Your task to perform on an android device: Search for Mexican restaurants on Maps Image 0: 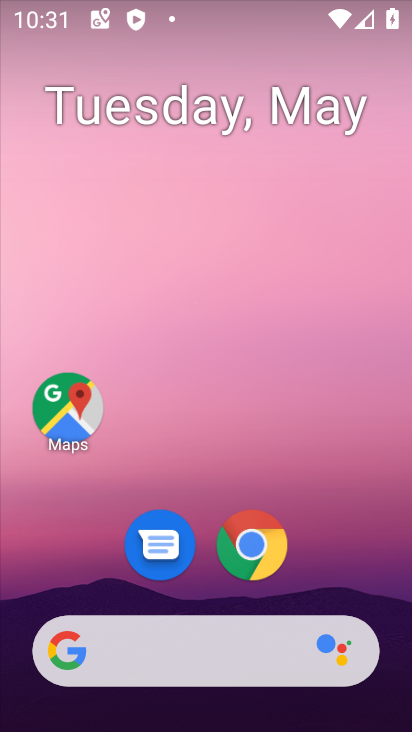
Step 0: click (83, 415)
Your task to perform on an android device: Search for Mexican restaurants on Maps Image 1: 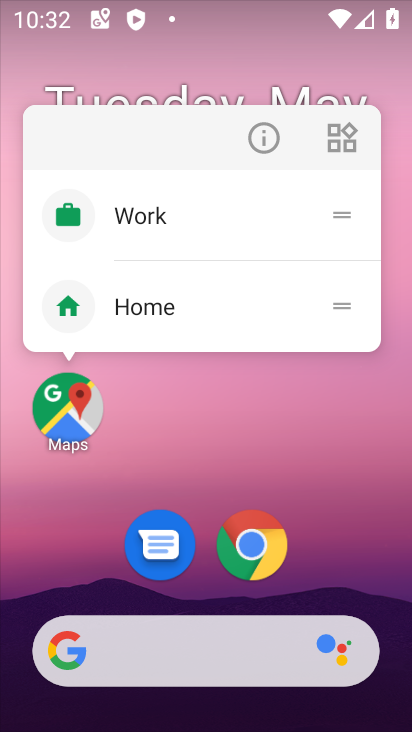
Step 1: click (87, 439)
Your task to perform on an android device: Search for Mexican restaurants on Maps Image 2: 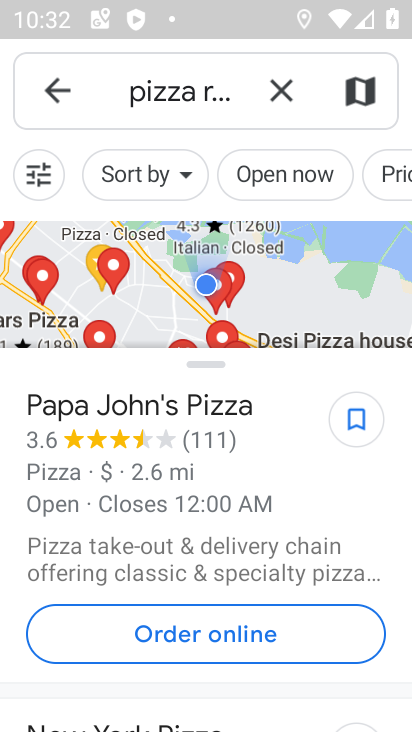
Step 2: click (281, 99)
Your task to perform on an android device: Search for Mexican restaurants on Maps Image 3: 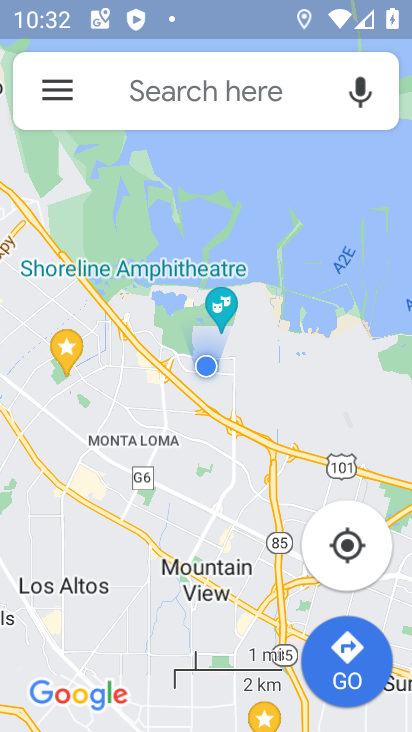
Step 3: click (224, 97)
Your task to perform on an android device: Search for Mexican restaurants on Maps Image 4: 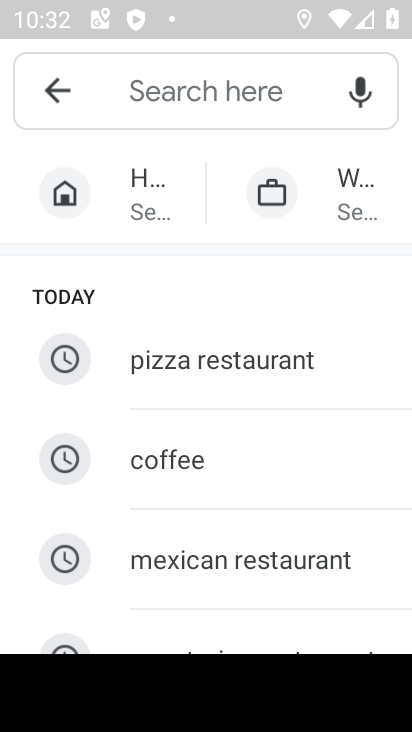
Step 4: type "mexican"
Your task to perform on an android device: Search for Mexican restaurants on Maps Image 5: 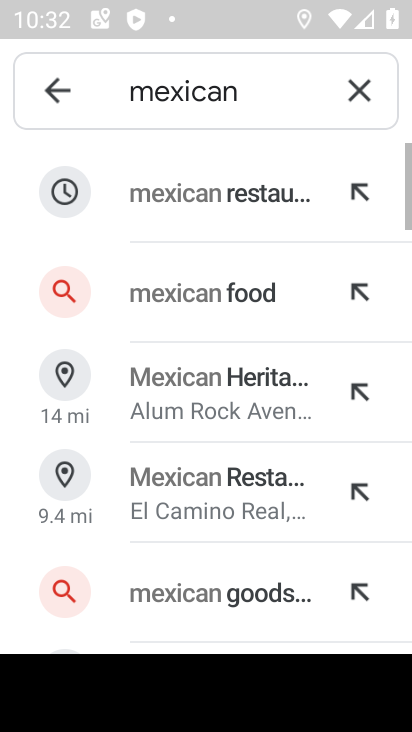
Step 5: click (229, 198)
Your task to perform on an android device: Search for Mexican restaurants on Maps Image 6: 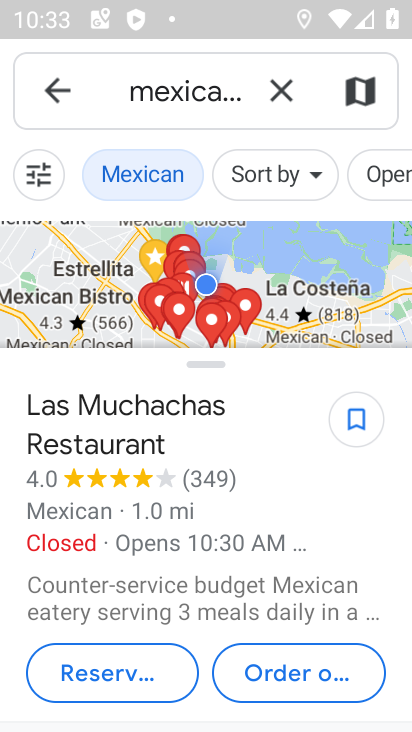
Step 6: task complete